Your task to perform on an android device: open a bookmark in the chrome app Image 0: 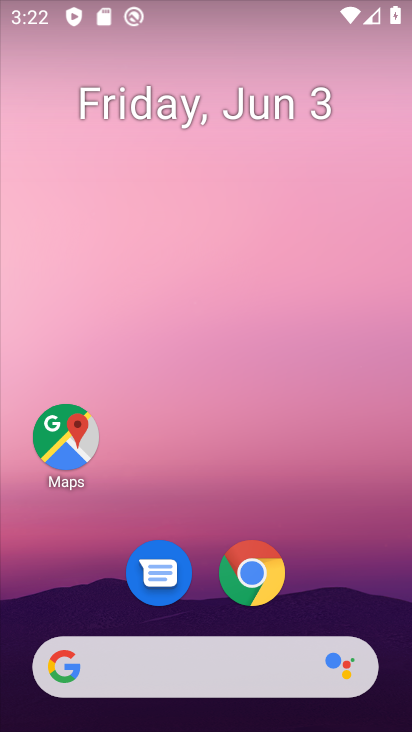
Step 0: click (361, 513)
Your task to perform on an android device: open a bookmark in the chrome app Image 1: 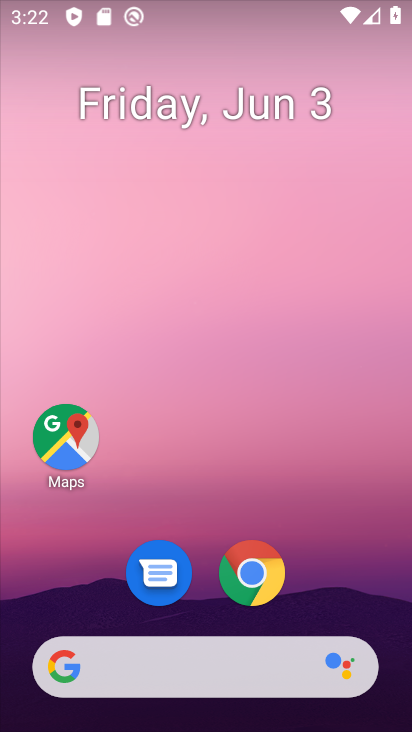
Step 1: click (261, 561)
Your task to perform on an android device: open a bookmark in the chrome app Image 2: 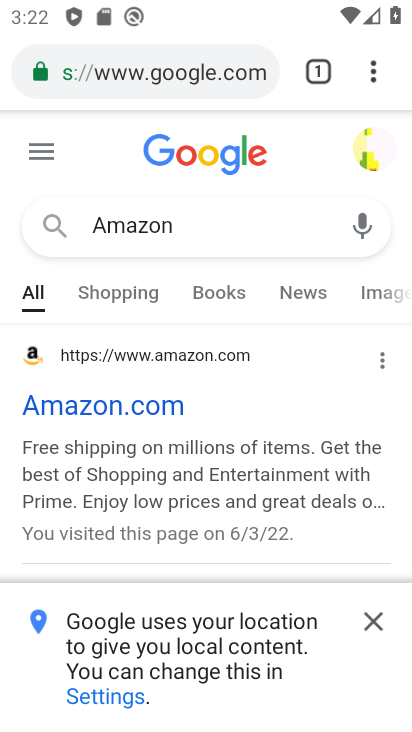
Step 2: click (371, 67)
Your task to perform on an android device: open a bookmark in the chrome app Image 3: 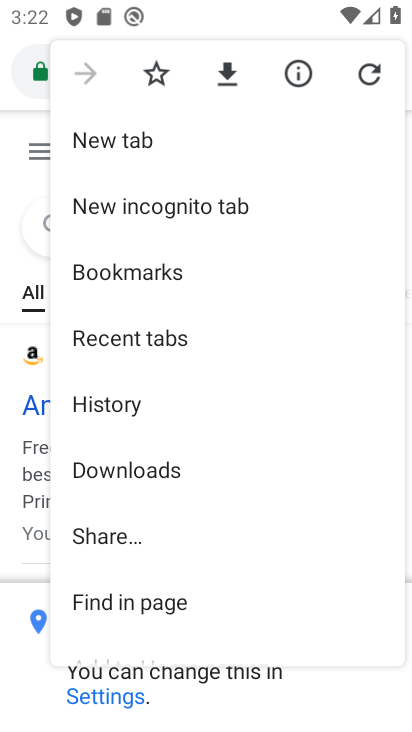
Step 3: click (140, 271)
Your task to perform on an android device: open a bookmark in the chrome app Image 4: 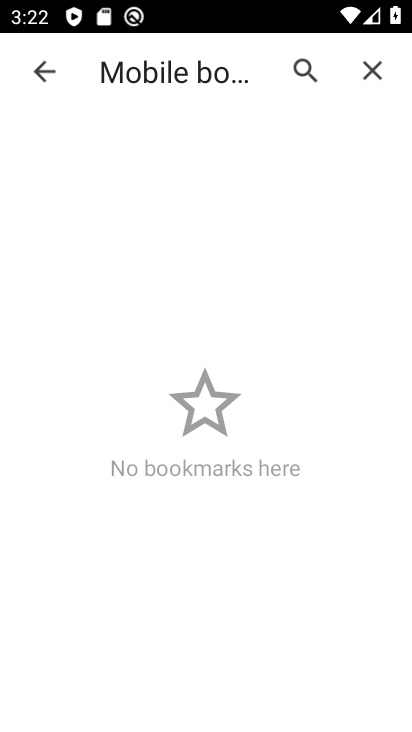
Step 4: task complete